Your task to perform on an android device: Go to Google maps Image 0: 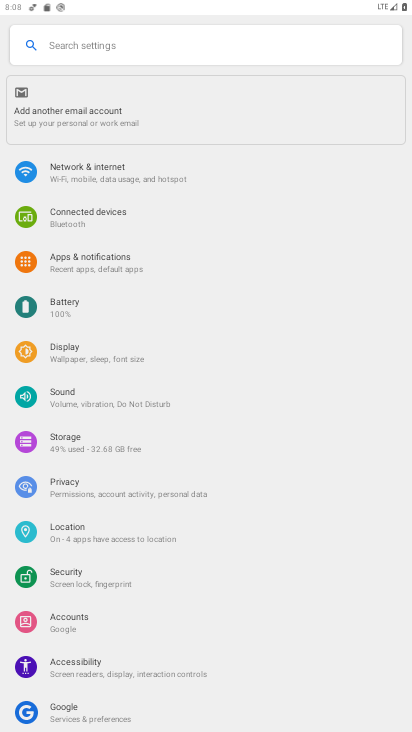
Step 0: press home button
Your task to perform on an android device: Go to Google maps Image 1: 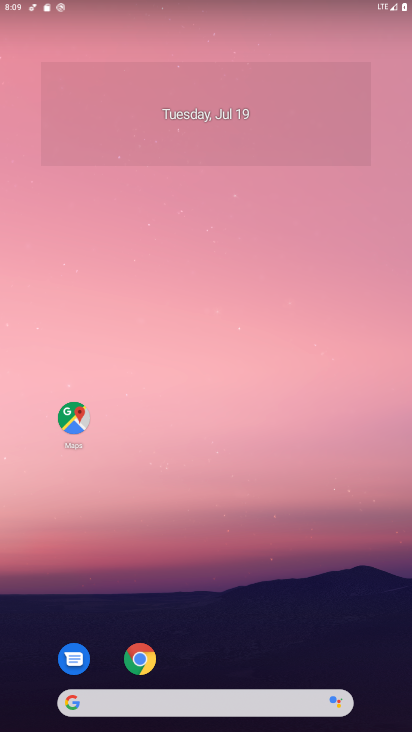
Step 1: click (73, 434)
Your task to perform on an android device: Go to Google maps Image 2: 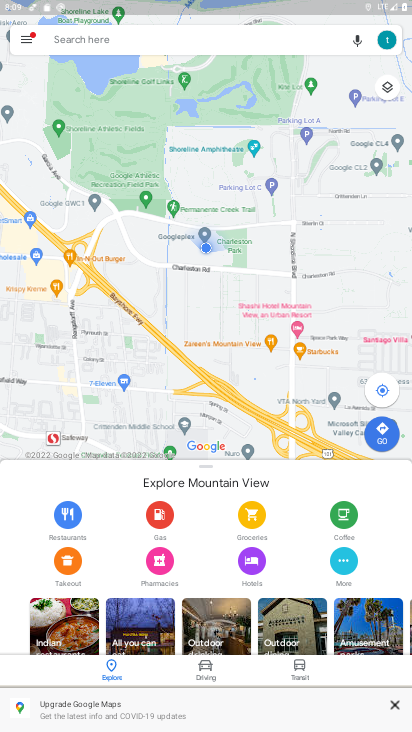
Step 2: task complete